Your task to perform on an android device: Open accessibility settings Image 0: 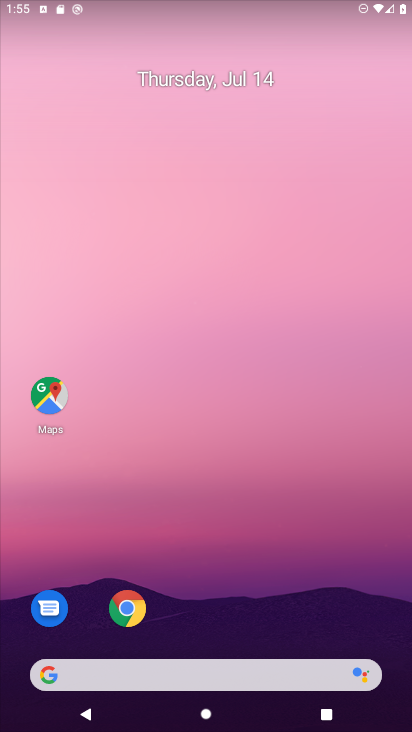
Step 0: drag from (375, 614) to (294, 78)
Your task to perform on an android device: Open accessibility settings Image 1: 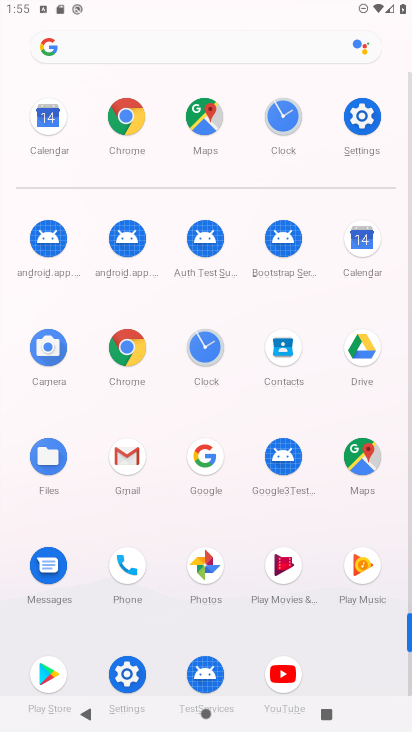
Step 1: click (127, 673)
Your task to perform on an android device: Open accessibility settings Image 2: 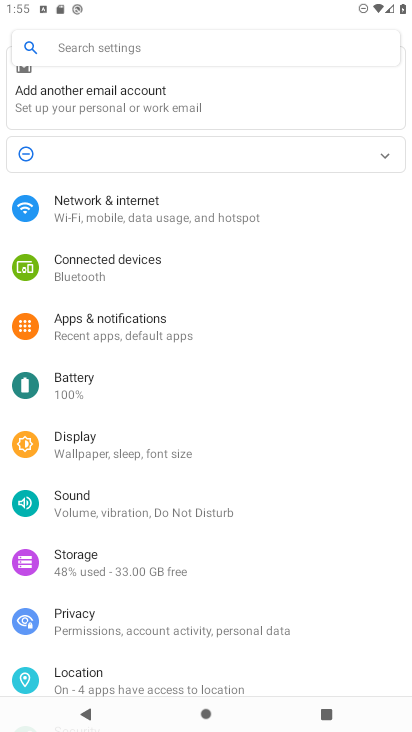
Step 2: drag from (201, 635) to (211, 277)
Your task to perform on an android device: Open accessibility settings Image 3: 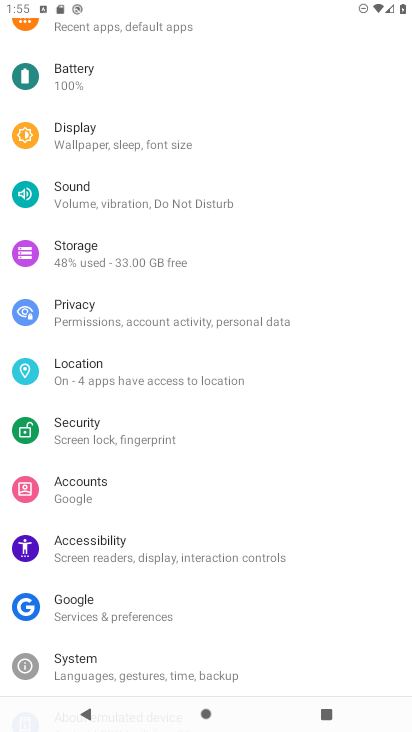
Step 3: click (89, 540)
Your task to perform on an android device: Open accessibility settings Image 4: 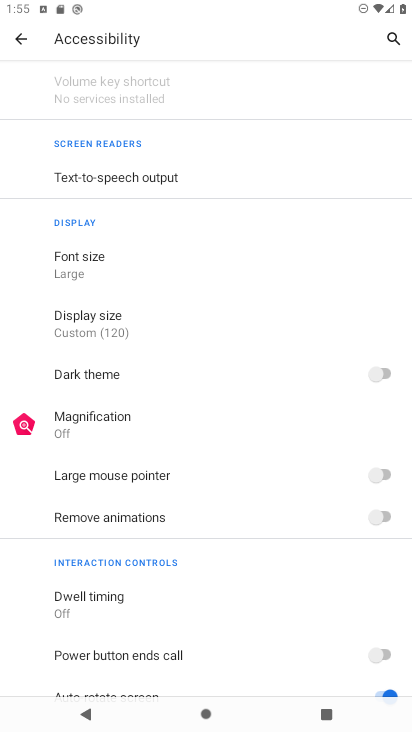
Step 4: task complete